Your task to perform on an android device: turn off sleep mode Image 0: 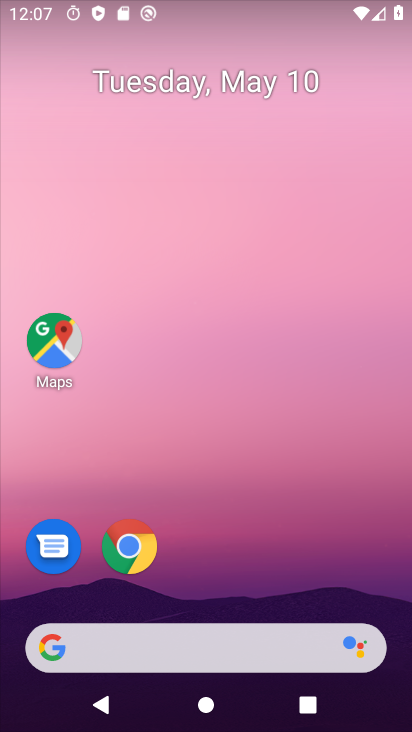
Step 0: press home button
Your task to perform on an android device: turn off sleep mode Image 1: 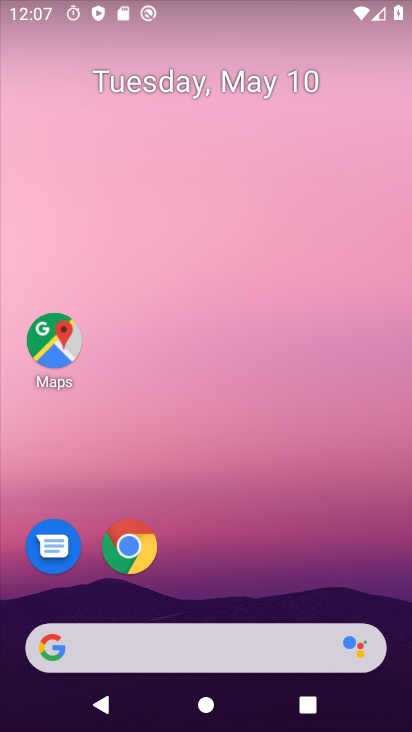
Step 1: drag from (241, 586) to (258, 3)
Your task to perform on an android device: turn off sleep mode Image 2: 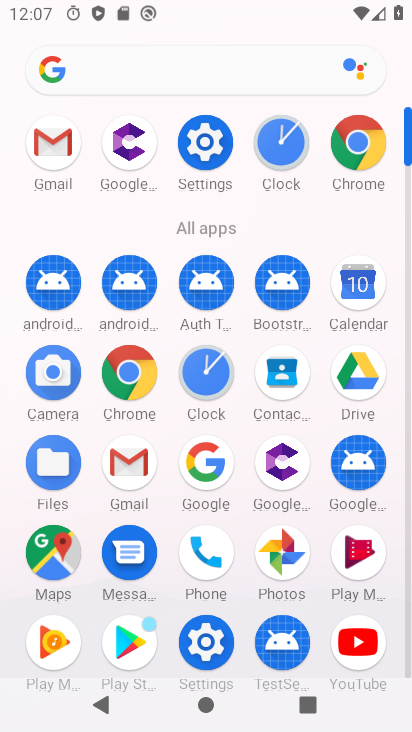
Step 2: click (192, 173)
Your task to perform on an android device: turn off sleep mode Image 3: 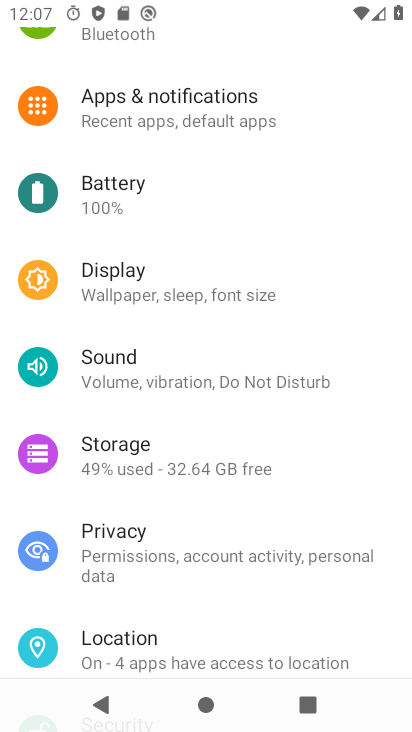
Step 3: click (143, 293)
Your task to perform on an android device: turn off sleep mode Image 4: 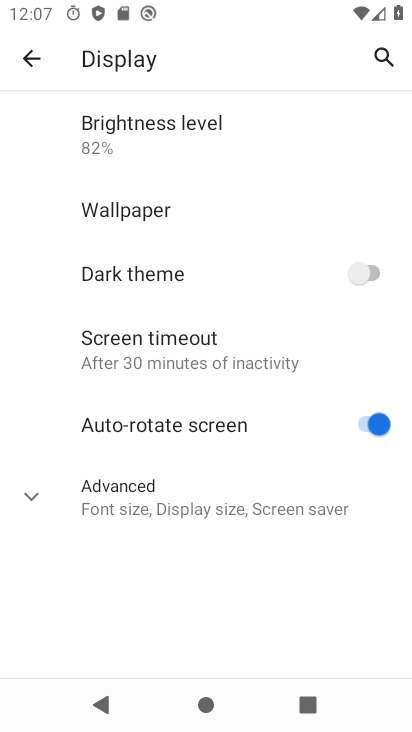
Step 4: task complete